Your task to perform on an android device: Open accessibility settings Image 0: 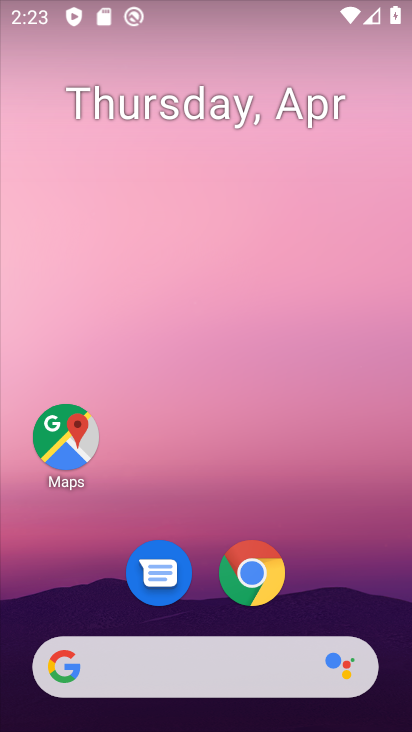
Step 0: drag from (345, 560) to (177, 53)
Your task to perform on an android device: Open accessibility settings Image 1: 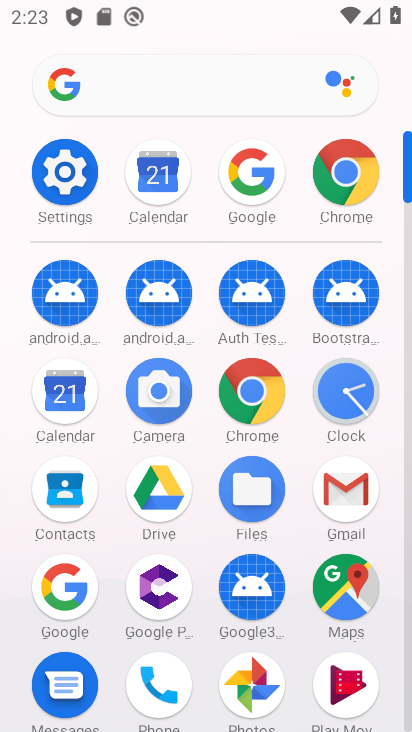
Step 1: click (69, 173)
Your task to perform on an android device: Open accessibility settings Image 2: 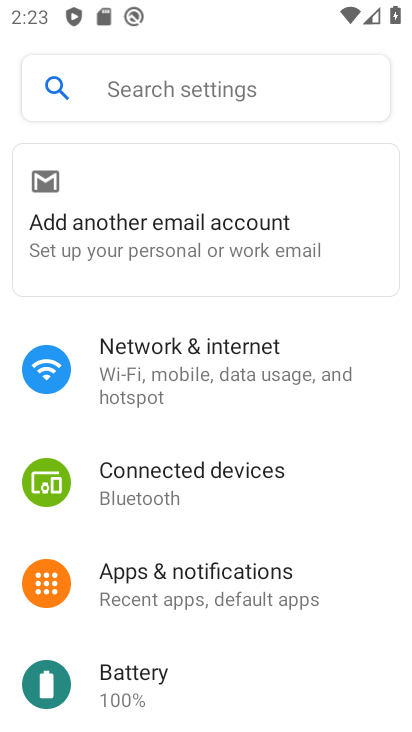
Step 2: drag from (207, 592) to (190, 71)
Your task to perform on an android device: Open accessibility settings Image 3: 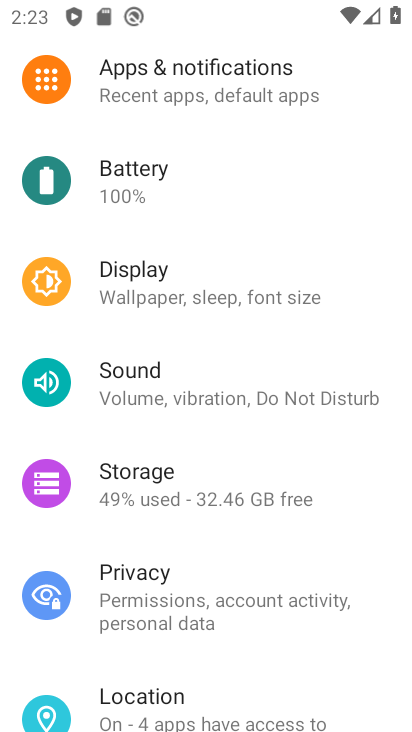
Step 3: drag from (196, 549) to (148, 7)
Your task to perform on an android device: Open accessibility settings Image 4: 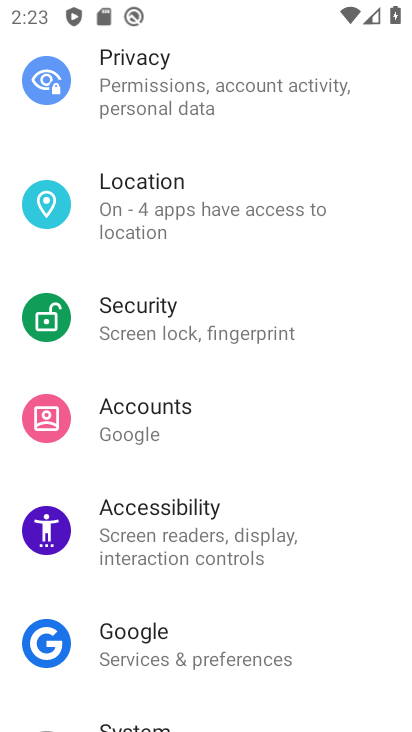
Step 4: click (203, 525)
Your task to perform on an android device: Open accessibility settings Image 5: 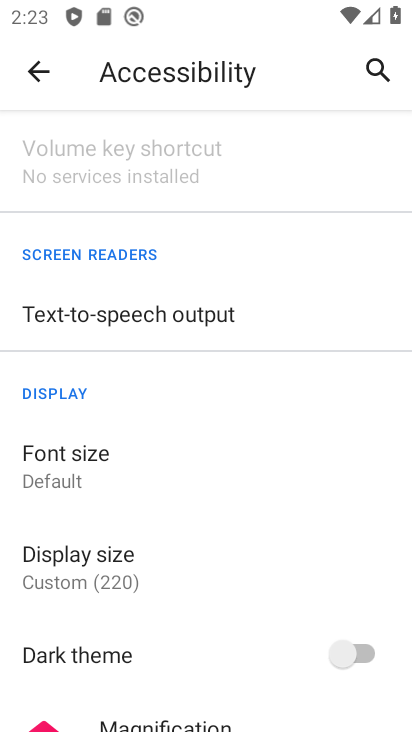
Step 5: task complete